Your task to perform on an android device: toggle improve location accuracy Image 0: 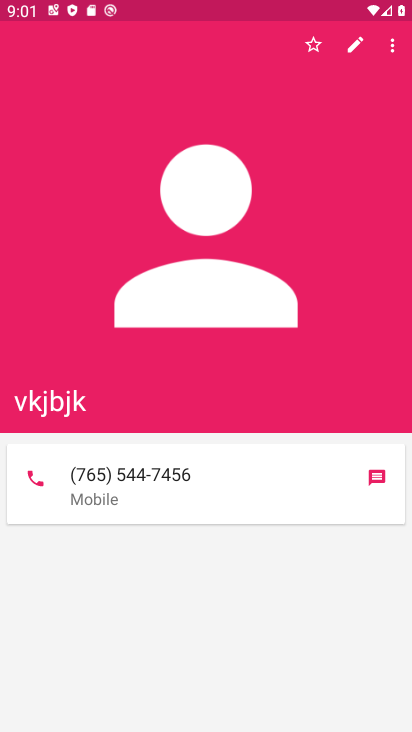
Step 0: press home button
Your task to perform on an android device: toggle improve location accuracy Image 1: 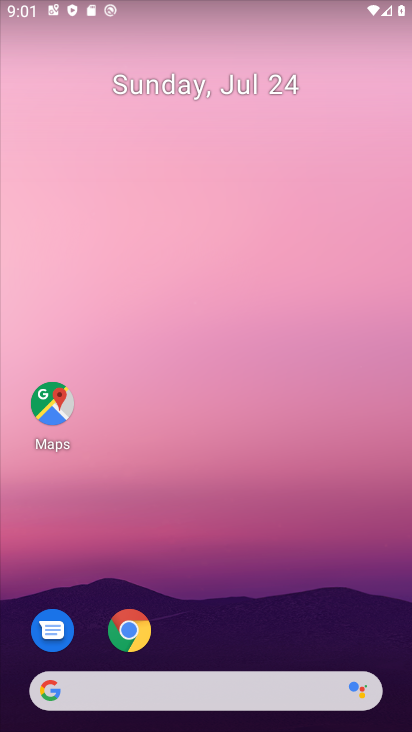
Step 1: drag from (206, 645) to (154, 198)
Your task to perform on an android device: toggle improve location accuracy Image 2: 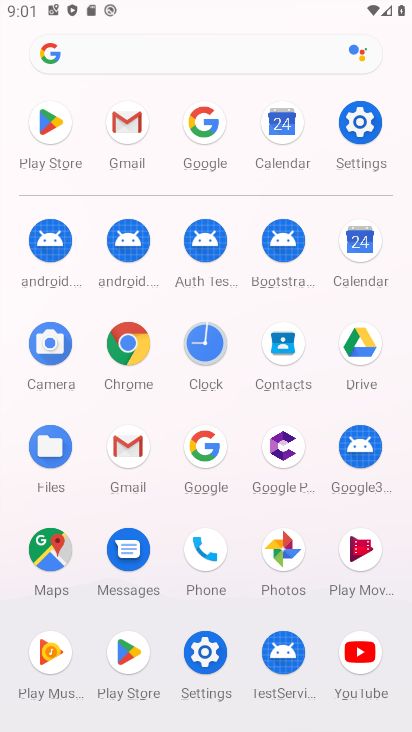
Step 2: click (350, 105)
Your task to perform on an android device: toggle improve location accuracy Image 3: 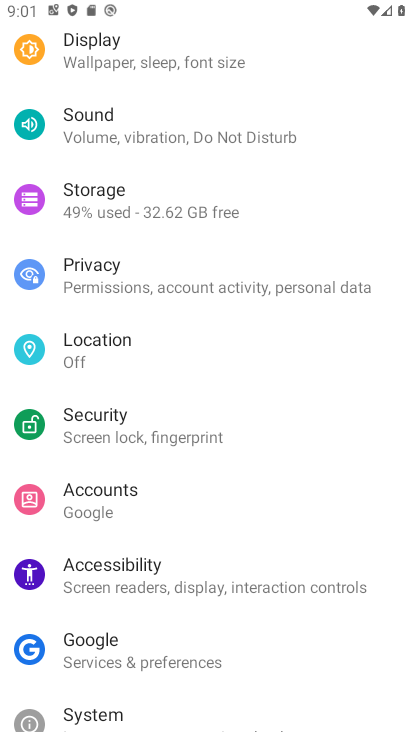
Step 3: click (180, 351)
Your task to perform on an android device: toggle improve location accuracy Image 4: 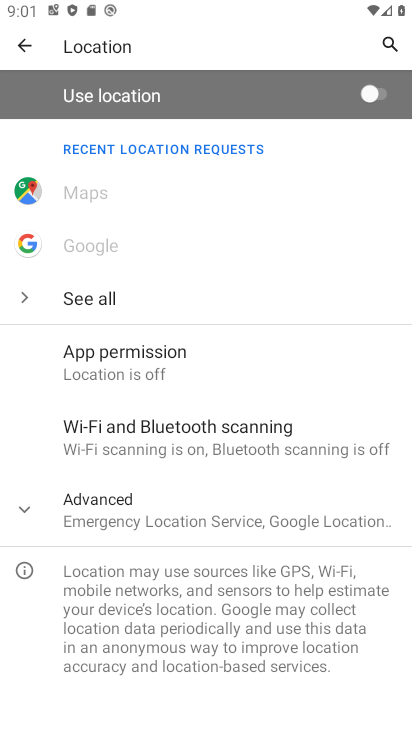
Step 4: click (162, 532)
Your task to perform on an android device: toggle improve location accuracy Image 5: 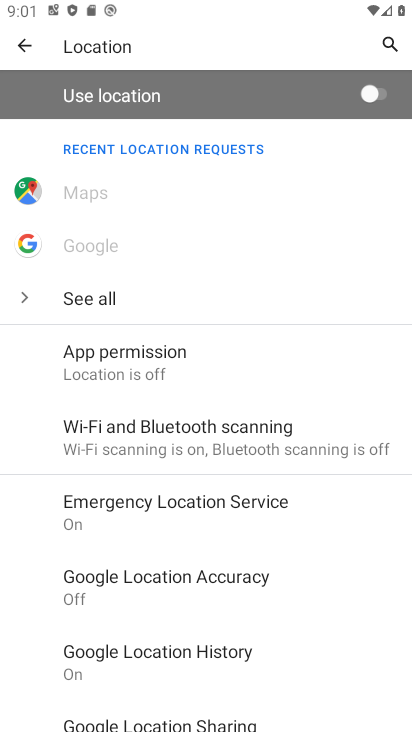
Step 5: click (248, 595)
Your task to perform on an android device: toggle improve location accuracy Image 6: 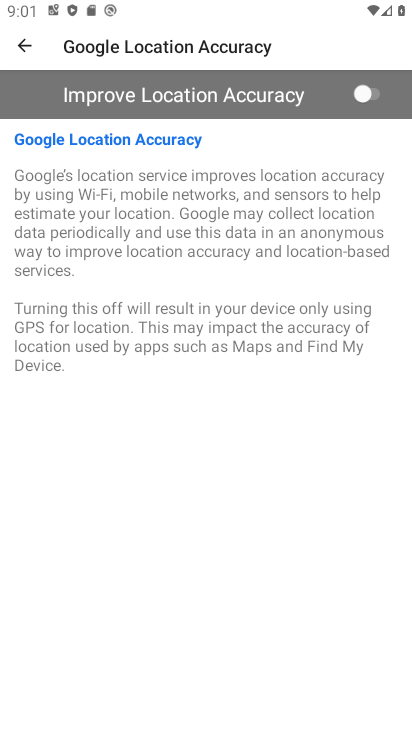
Step 6: click (377, 103)
Your task to perform on an android device: toggle improve location accuracy Image 7: 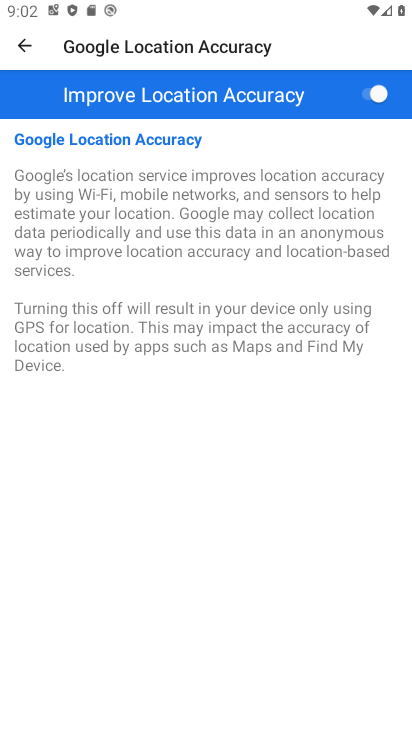
Step 7: task complete